Your task to perform on an android device: Open Maps and search for coffee Image 0: 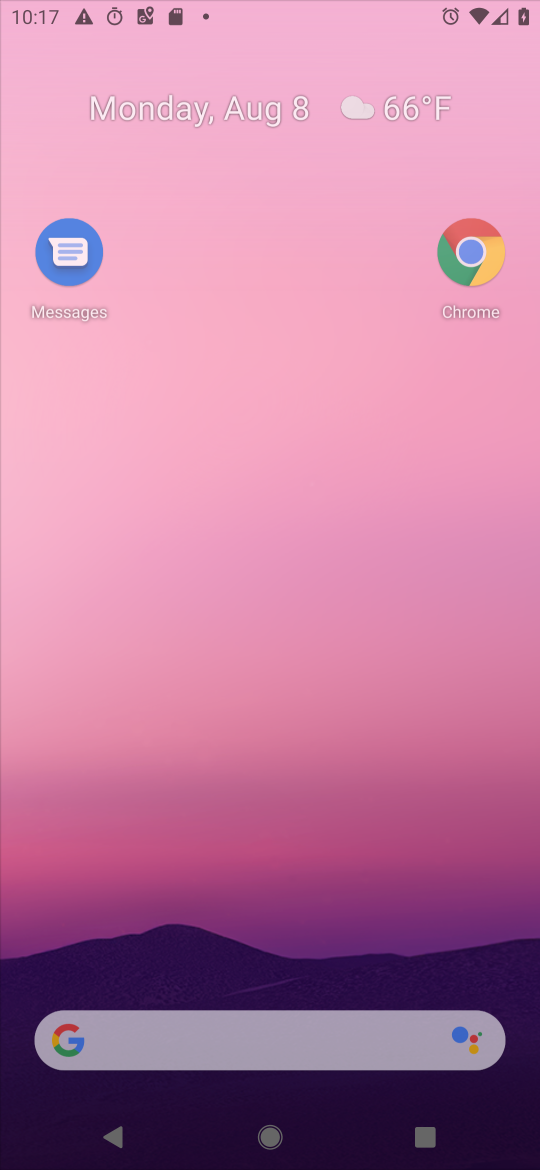
Step 0: click (337, 284)
Your task to perform on an android device: Open Maps and search for coffee Image 1: 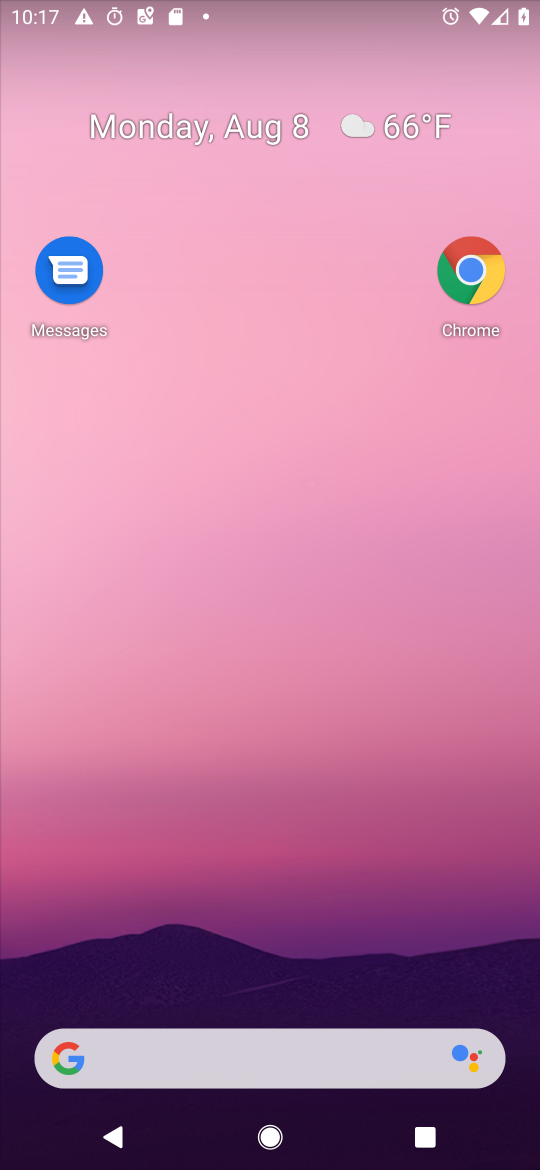
Step 1: click (39, 65)
Your task to perform on an android device: Open Maps and search for coffee Image 2: 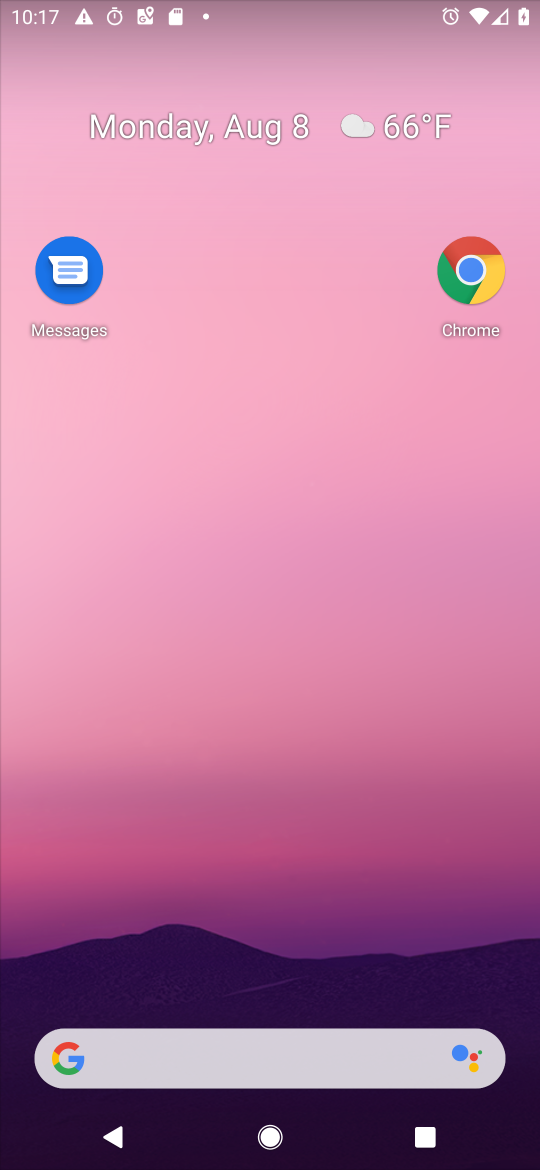
Step 2: drag from (342, 971) to (413, 501)
Your task to perform on an android device: Open Maps and search for coffee Image 3: 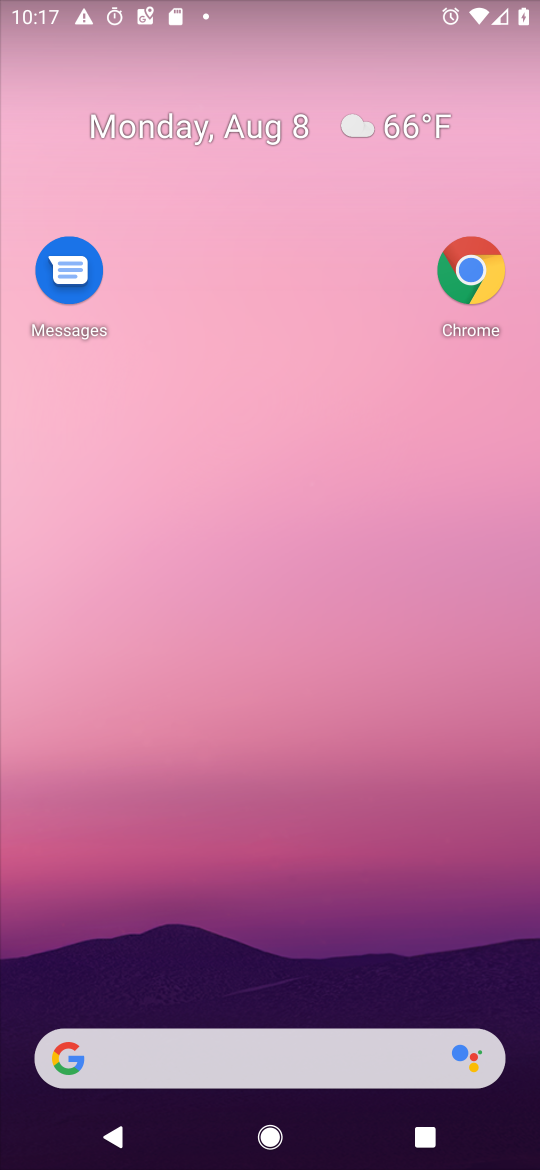
Step 3: drag from (273, 921) to (312, 306)
Your task to perform on an android device: Open Maps and search for coffee Image 4: 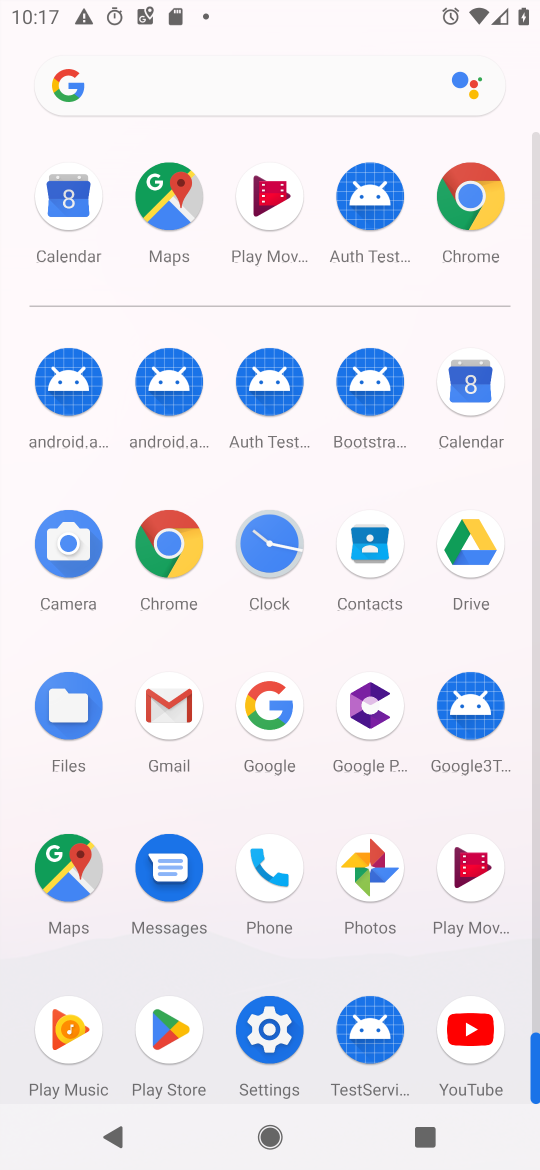
Step 4: click (74, 853)
Your task to perform on an android device: Open Maps and search for coffee Image 5: 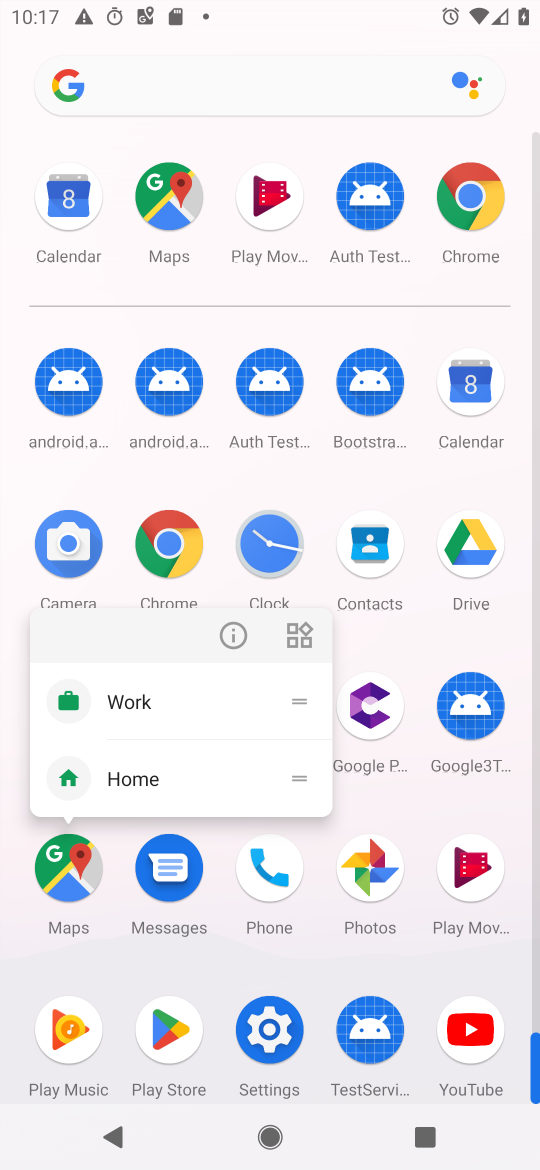
Step 5: click (224, 622)
Your task to perform on an android device: Open Maps and search for coffee Image 6: 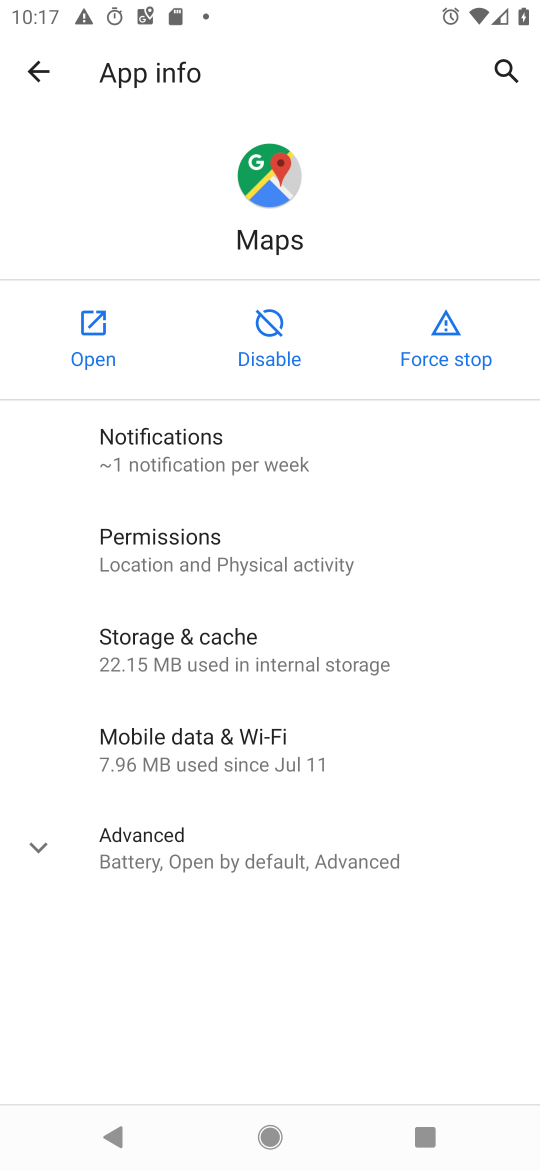
Step 6: click (100, 334)
Your task to perform on an android device: Open Maps and search for coffee Image 7: 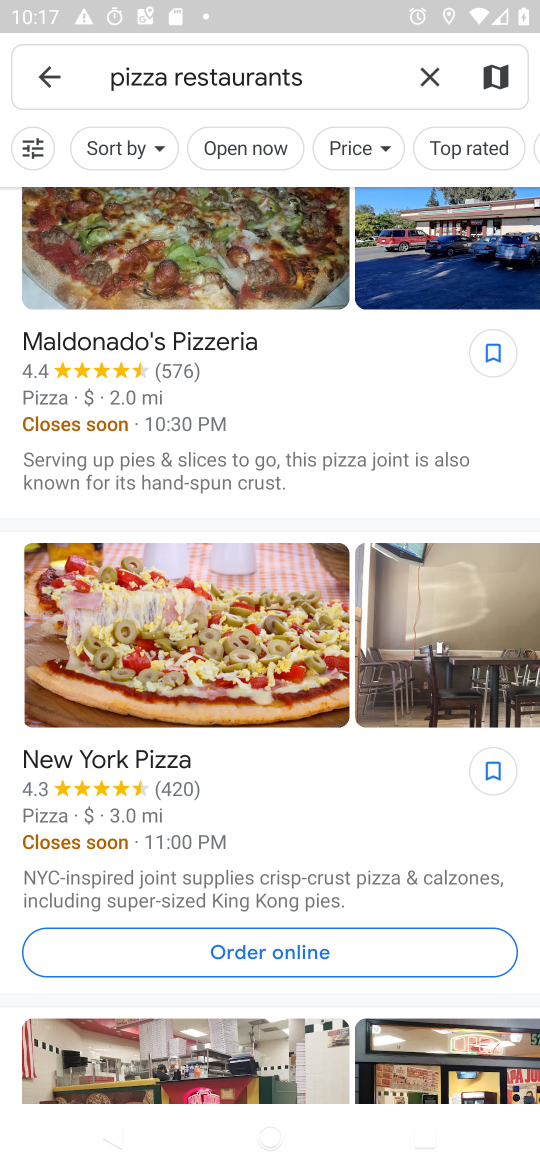
Step 7: click (416, 77)
Your task to perform on an android device: Open Maps and search for coffee Image 8: 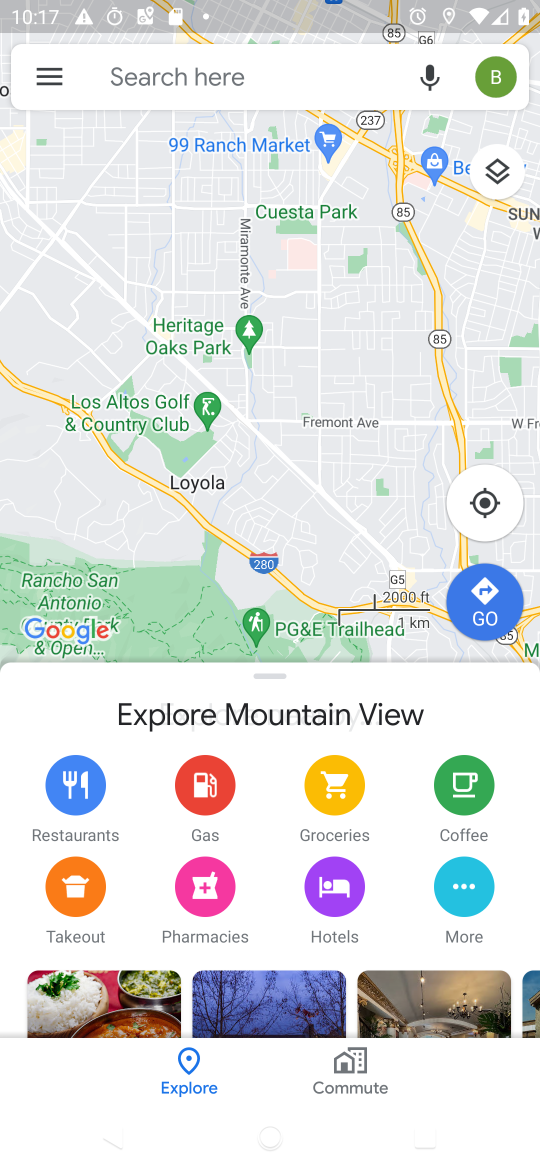
Step 8: click (164, 77)
Your task to perform on an android device: Open Maps and search for coffee Image 9: 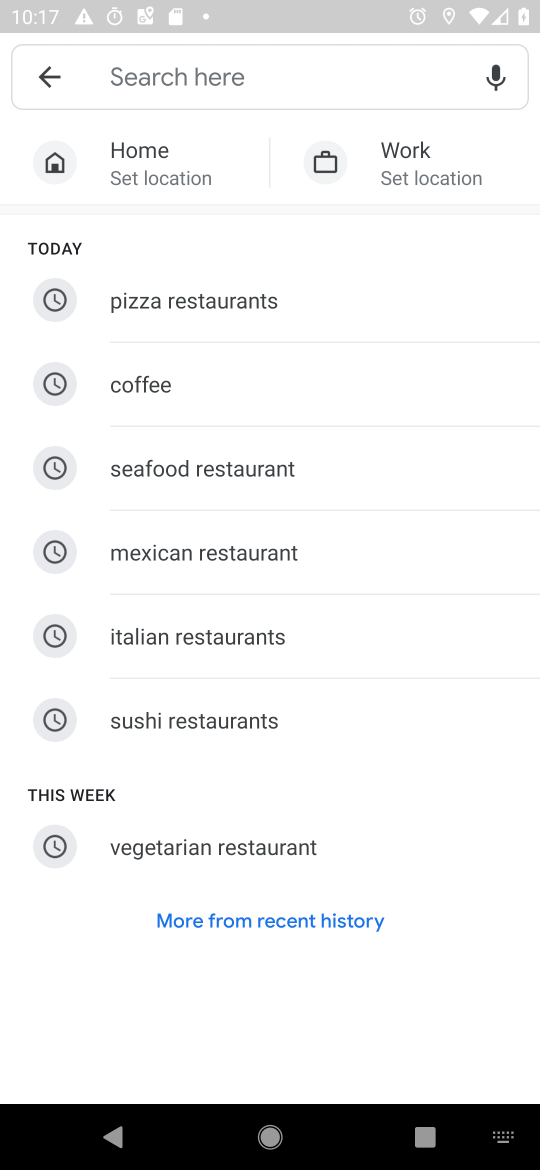
Step 9: click (165, 380)
Your task to perform on an android device: Open Maps and search for coffee Image 10: 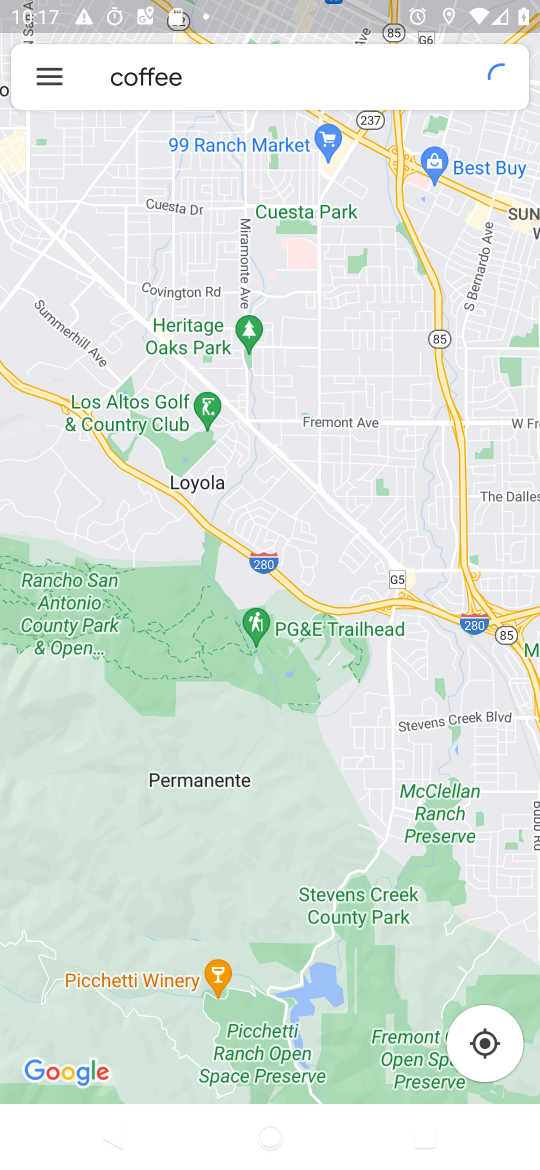
Step 10: task complete